Your task to perform on an android device: Open Google Maps and go to "Timeline" Image 0: 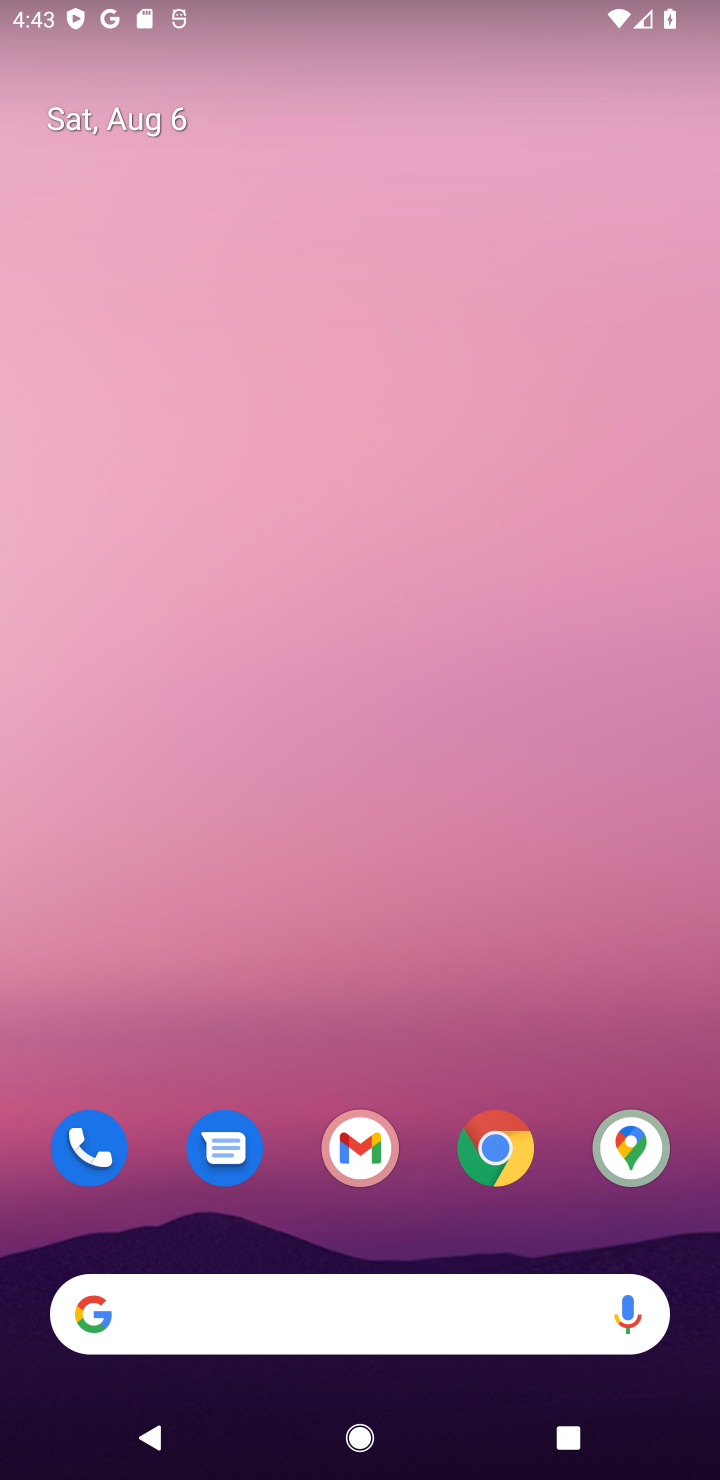
Step 0: drag from (381, 1252) to (296, 199)
Your task to perform on an android device: Open Google Maps and go to "Timeline" Image 1: 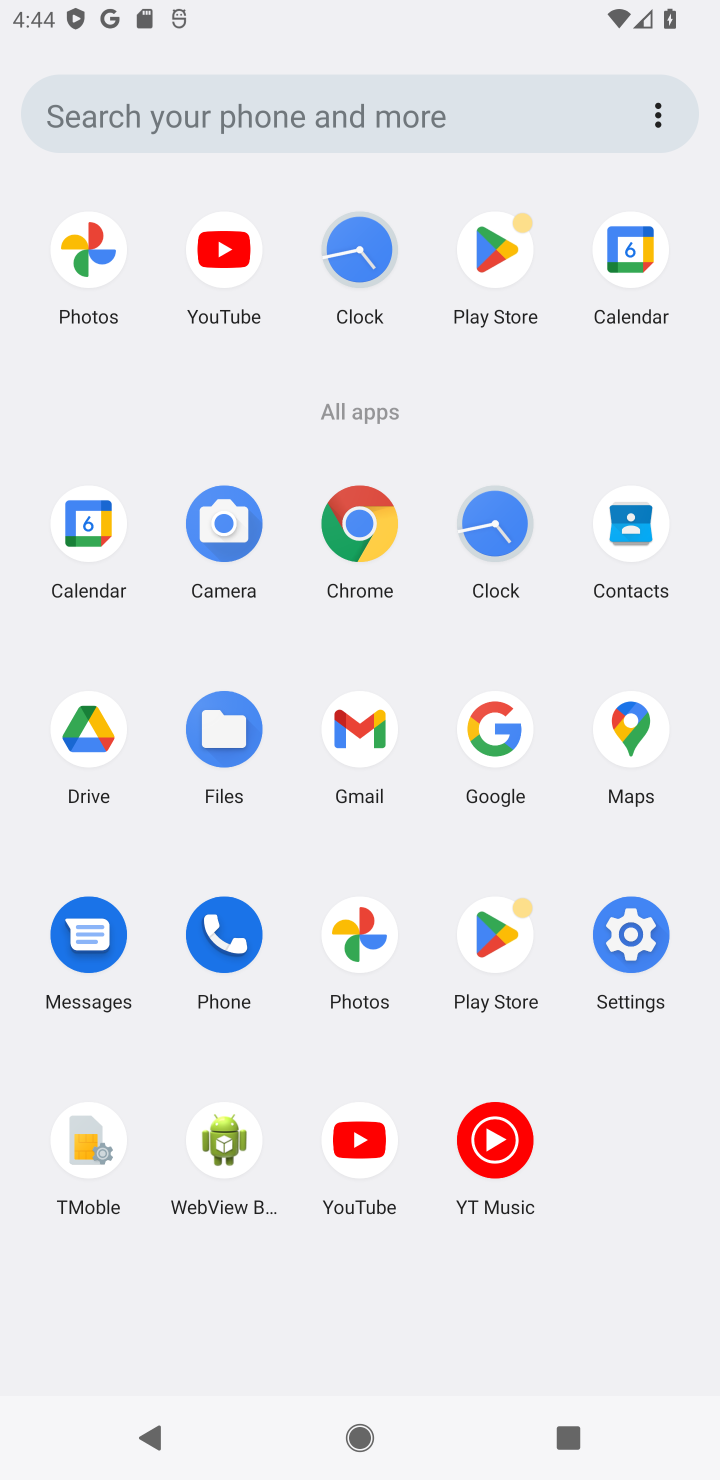
Step 1: click (611, 726)
Your task to perform on an android device: Open Google Maps and go to "Timeline" Image 2: 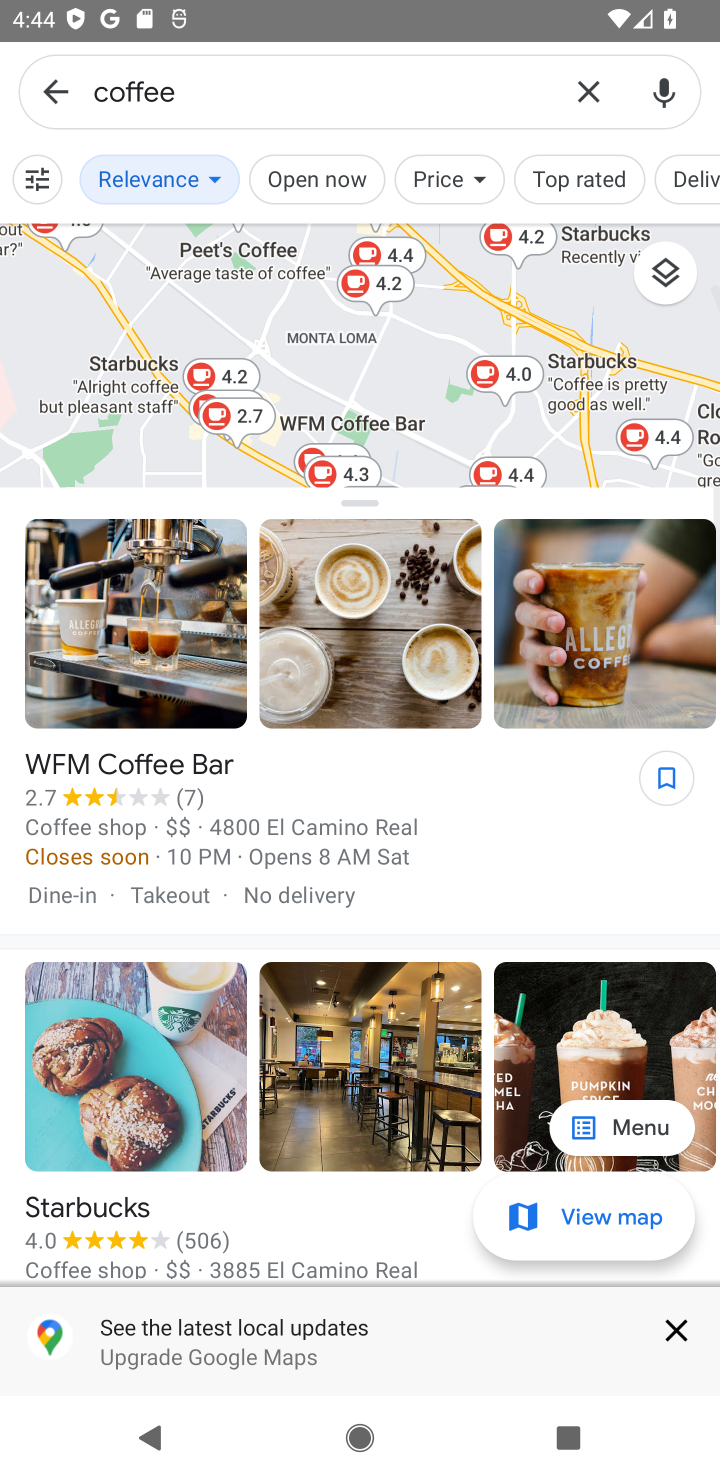
Step 2: click (53, 91)
Your task to perform on an android device: Open Google Maps and go to "Timeline" Image 3: 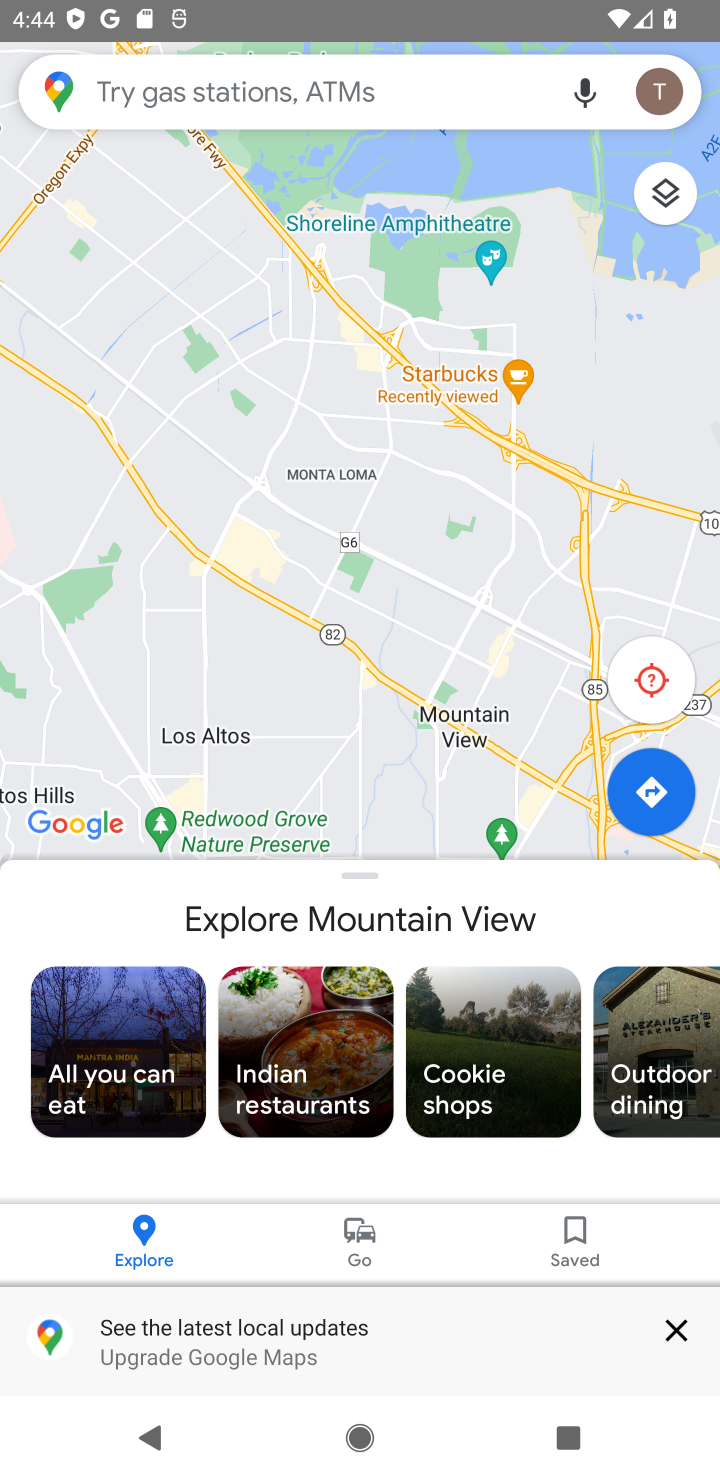
Step 3: click (661, 80)
Your task to perform on an android device: Open Google Maps and go to "Timeline" Image 4: 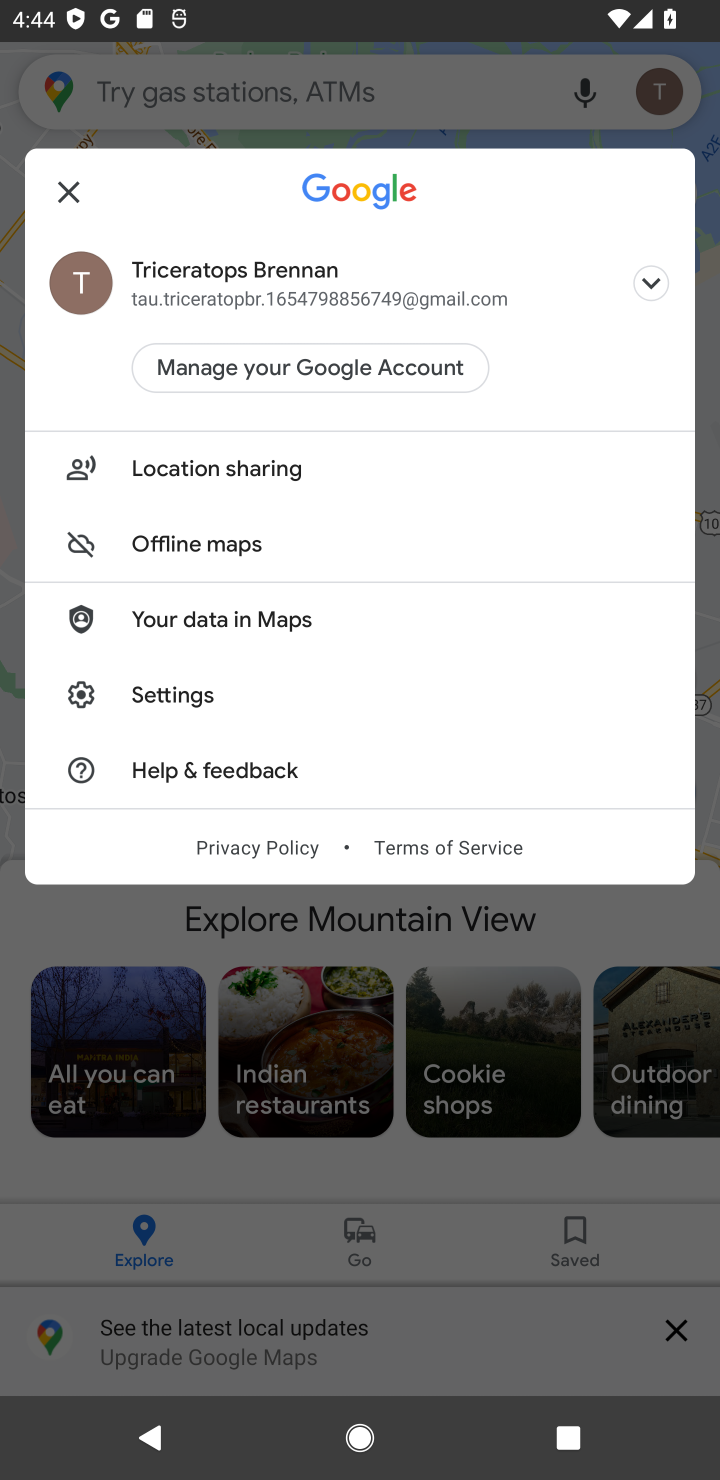
Step 4: click (149, 679)
Your task to perform on an android device: Open Google Maps and go to "Timeline" Image 5: 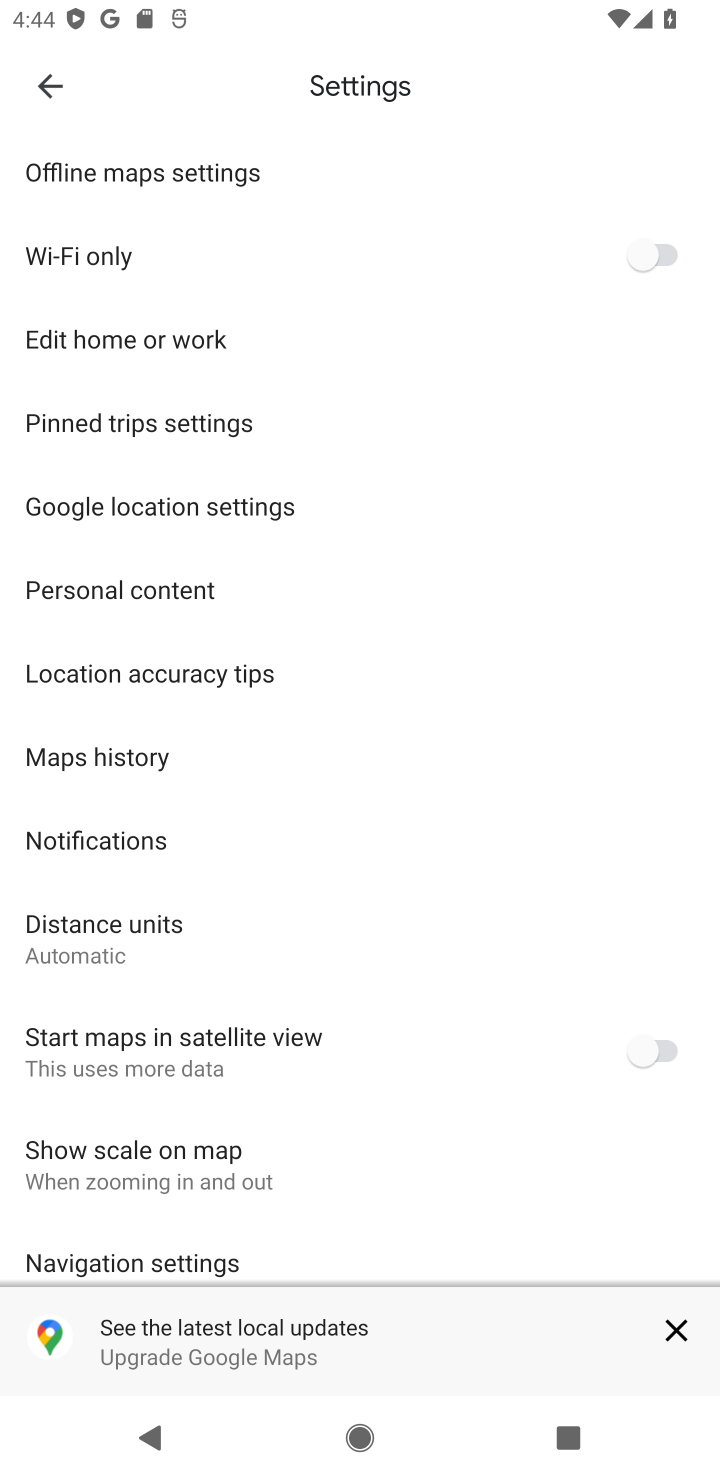
Step 5: task complete